Your task to perform on an android device: install app "WhatsApp Messenger" Image 0: 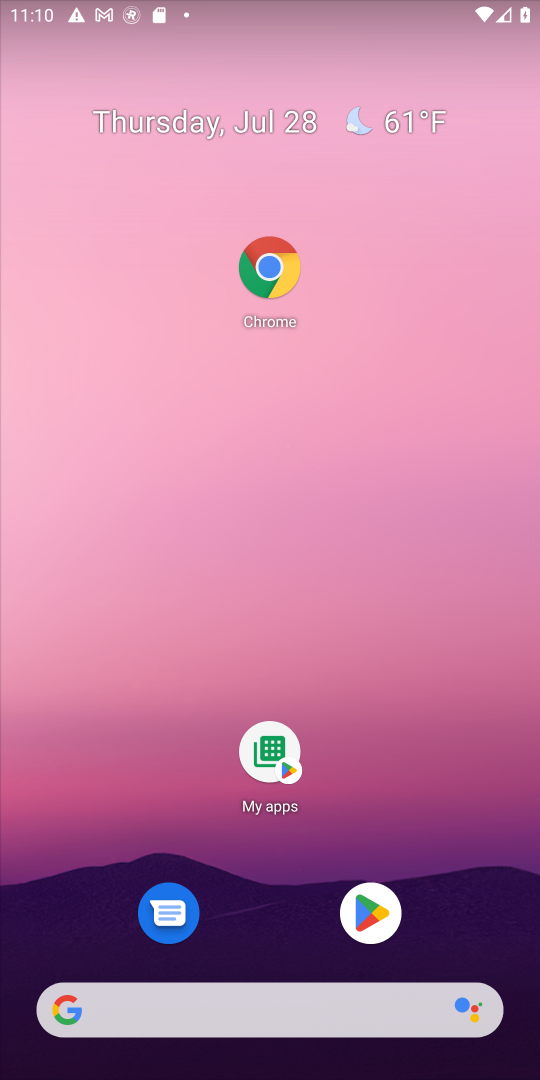
Step 0: press home button
Your task to perform on an android device: install app "WhatsApp Messenger" Image 1: 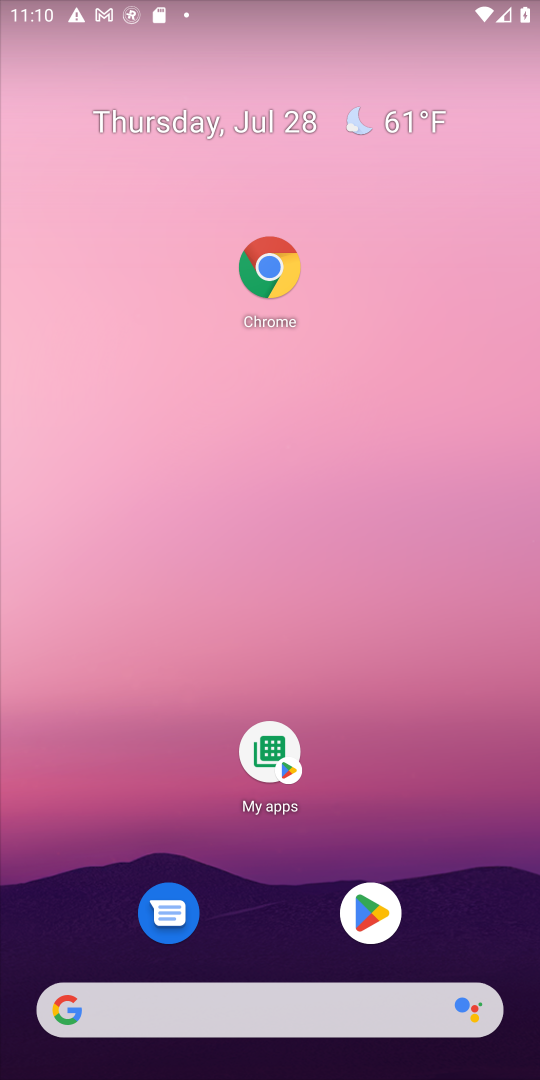
Step 1: click (369, 923)
Your task to perform on an android device: install app "WhatsApp Messenger" Image 2: 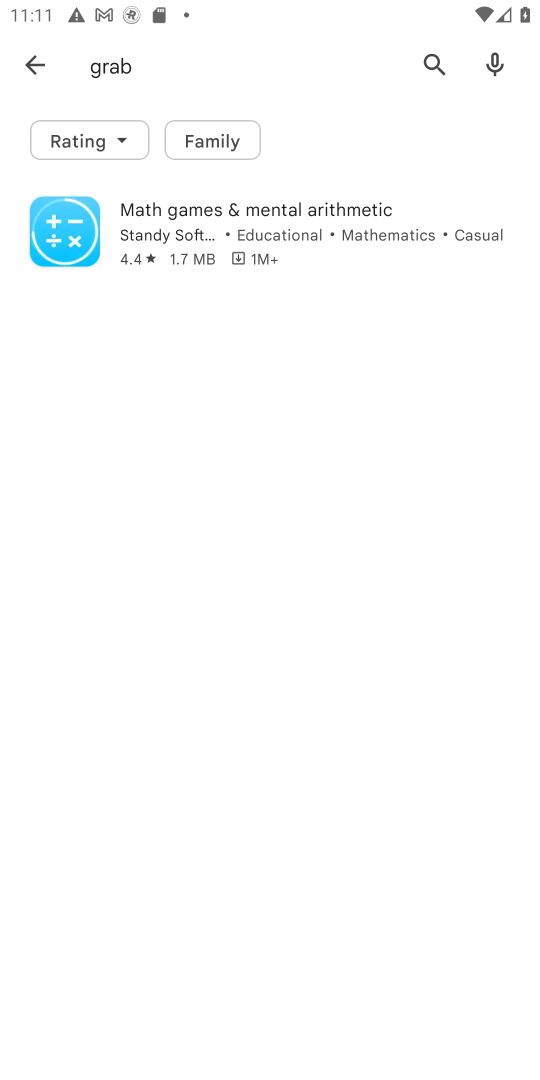
Step 2: click (424, 66)
Your task to perform on an android device: install app "WhatsApp Messenger" Image 3: 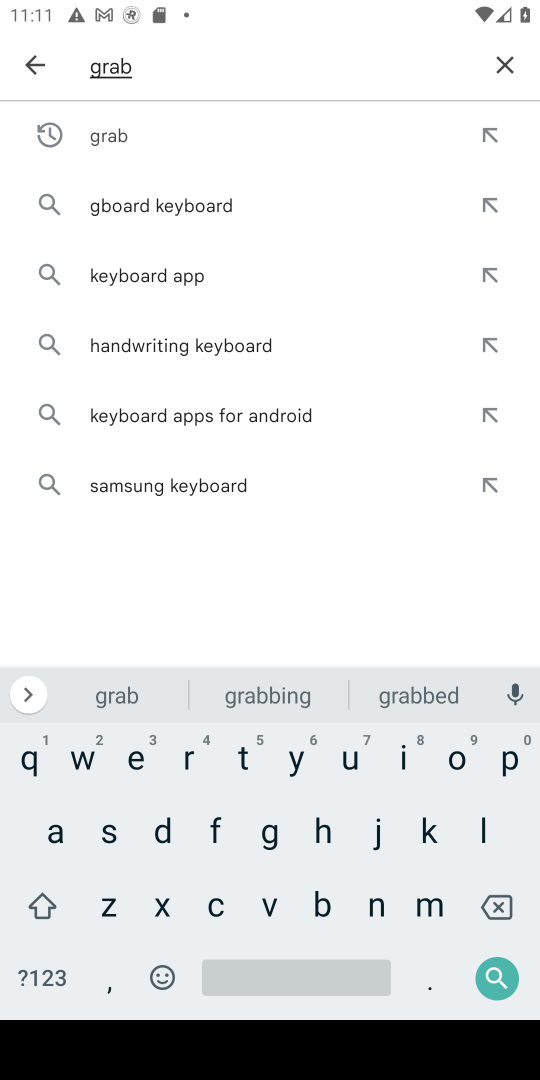
Step 3: click (500, 60)
Your task to perform on an android device: install app "WhatsApp Messenger" Image 4: 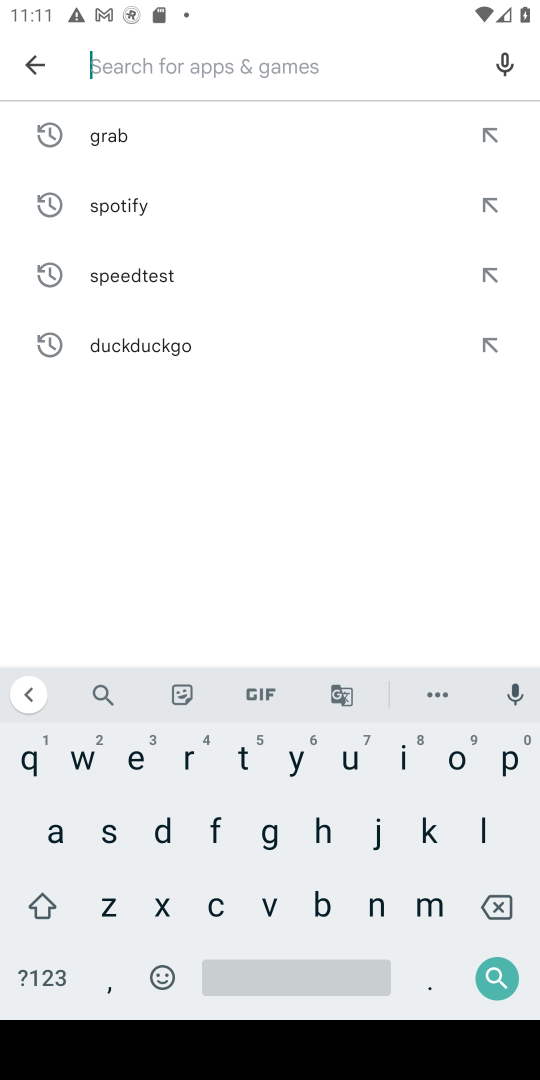
Step 4: click (80, 757)
Your task to perform on an android device: install app "WhatsApp Messenger" Image 5: 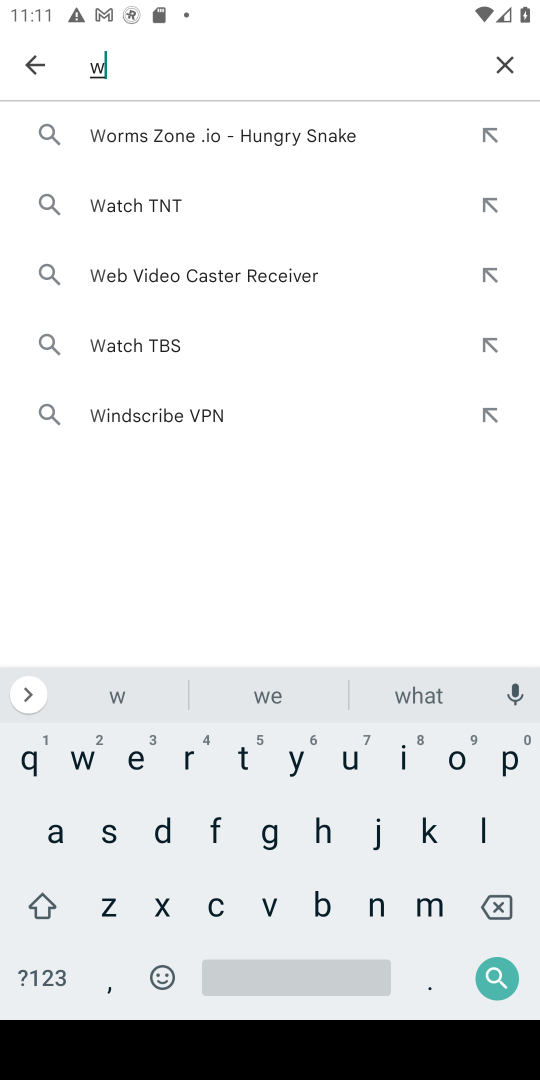
Step 5: click (324, 837)
Your task to perform on an android device: install app "WhatsApp Messenger" Image 6: 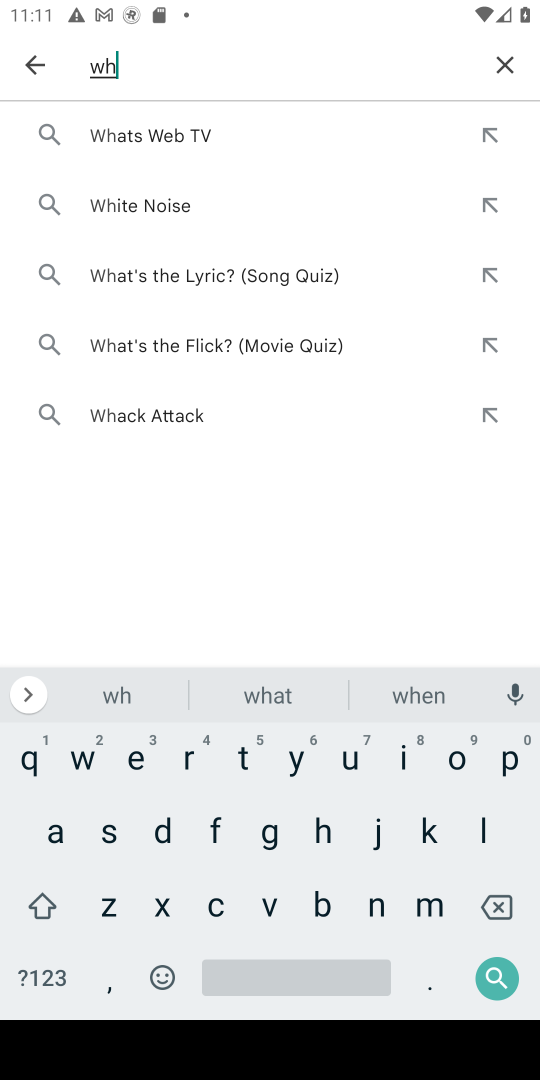
Step 6: click (50, 825)
Your task to perform on an android device: install app "WhatsApp Messenger" Image 7: 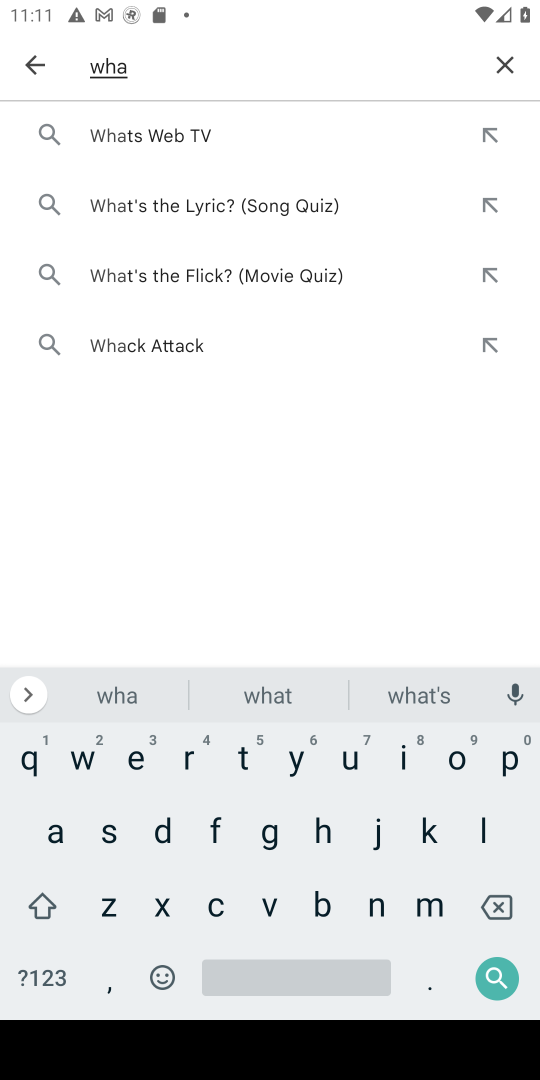
Step 7: click (244, 754)
Your task to perform on an android device: install app "WhatsApp Messenger" Image 8: 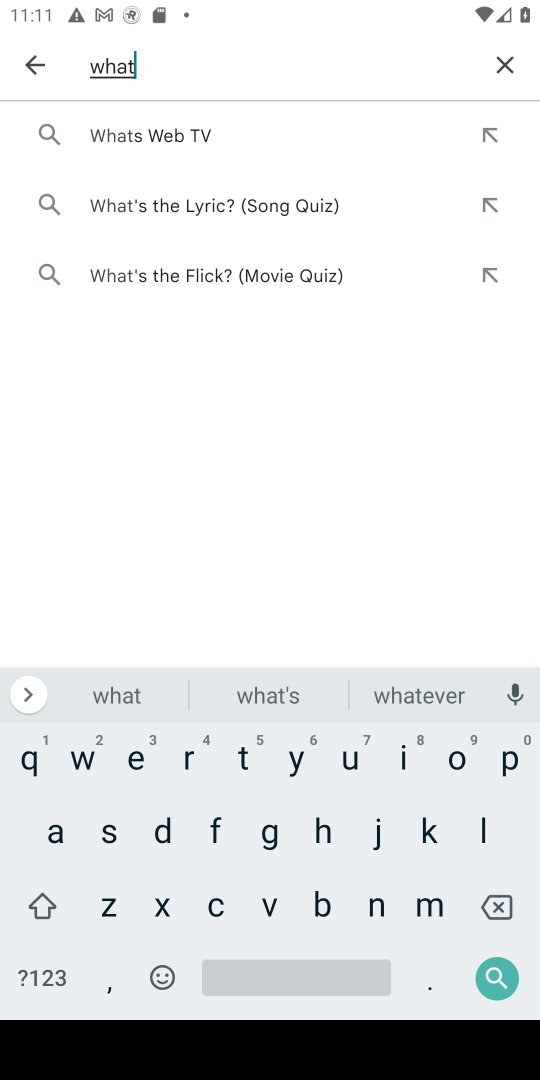
Step 8: click (101, 837)
Your task to perform on an android device: install app "WhatsApp Messenger" Image 9: 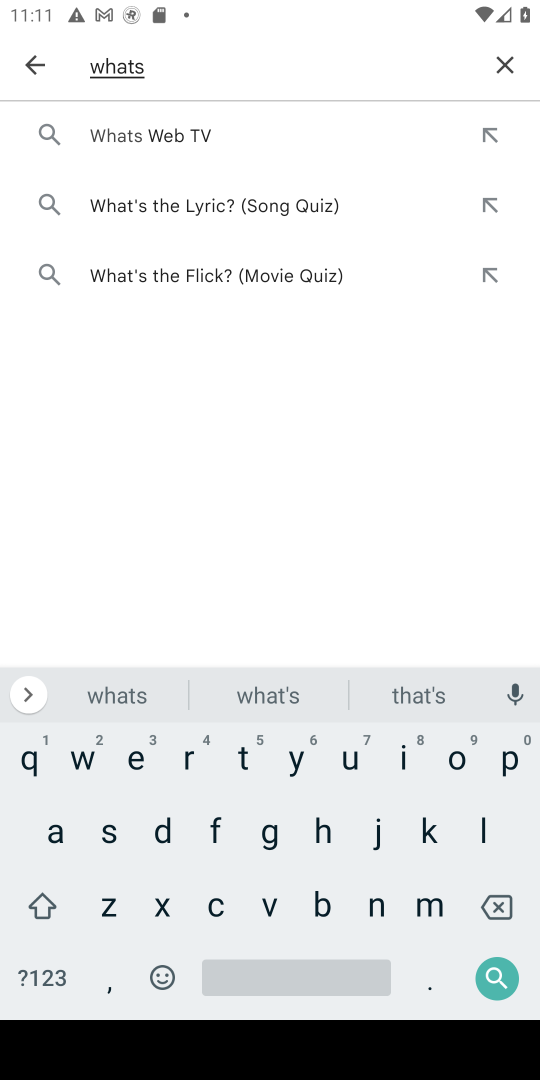
Step 9: click (51, 829)
Your task to perform on an android device: install app "WhatsApp Messenger" Image 10: 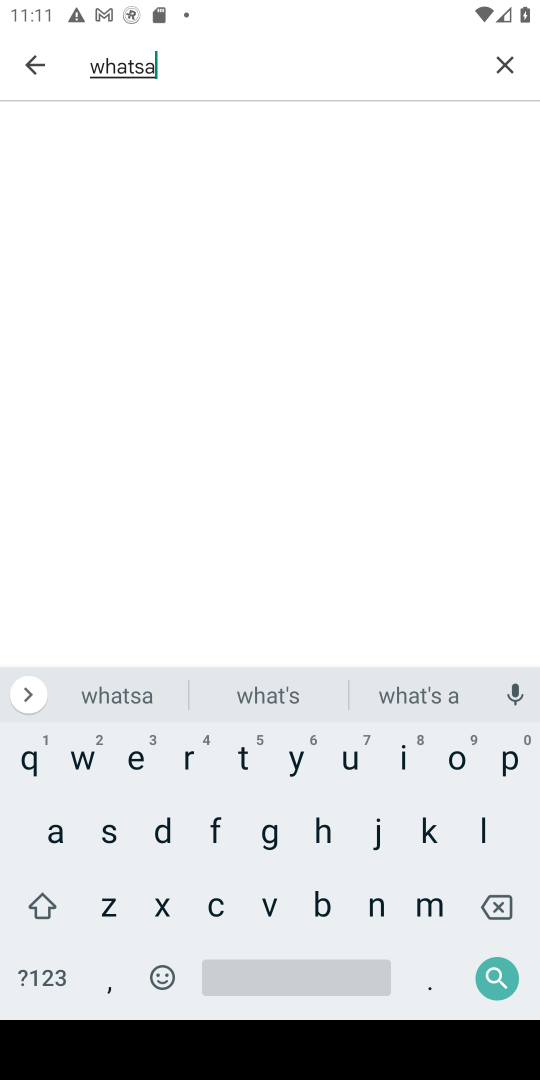
Step 10: click (501, 760)
Your task to perform on an android device: install app "WhatsApp Messenger" Image 11: 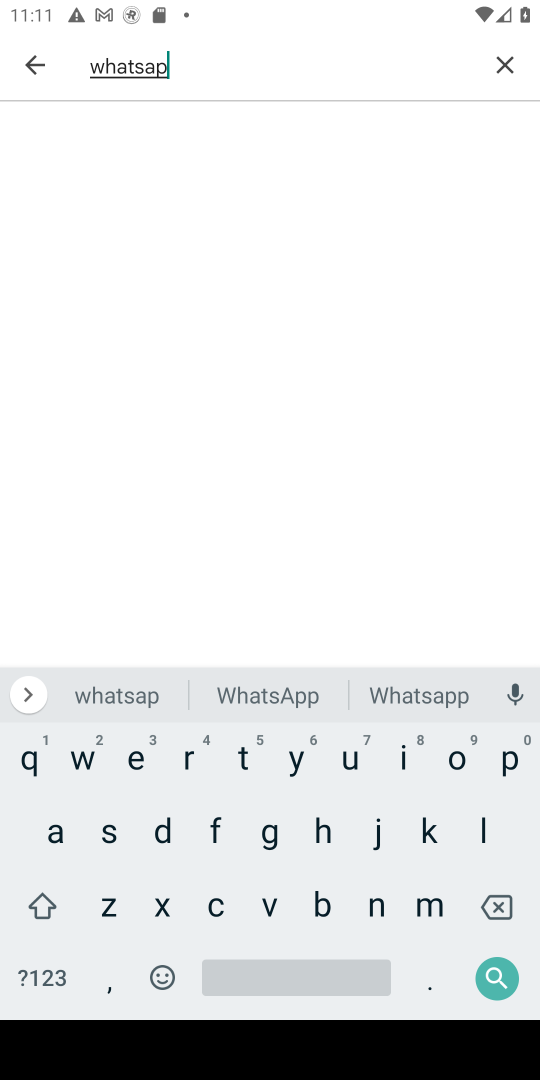
Step 11: click (501, 760)
Your task to perform on an android device: install app "WhatsApp Messenger" Image 12: 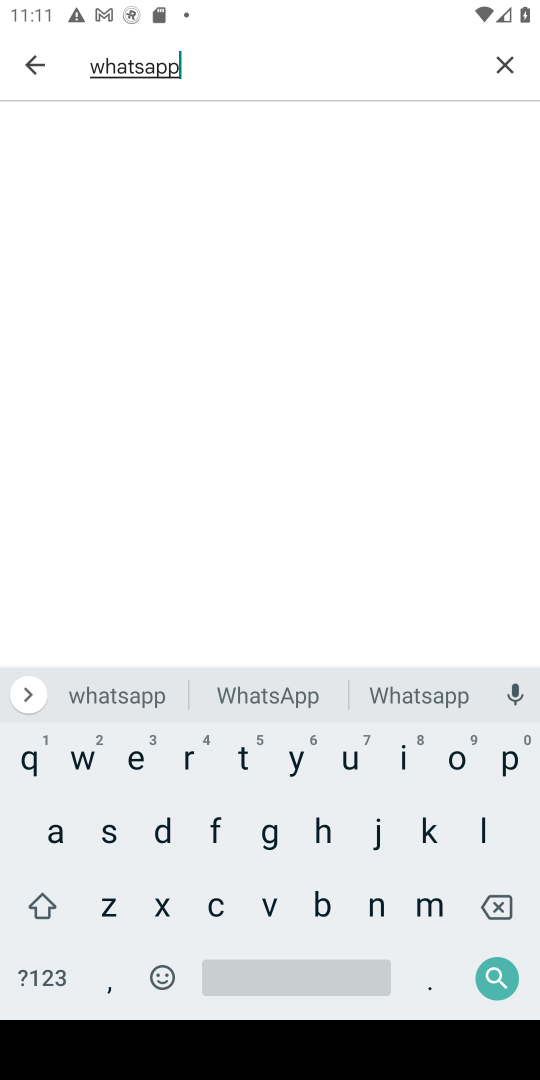
Step 12: click (305, 689)
Your task to perform on an android device: install app "WhatsApp Messenger" Image 13: 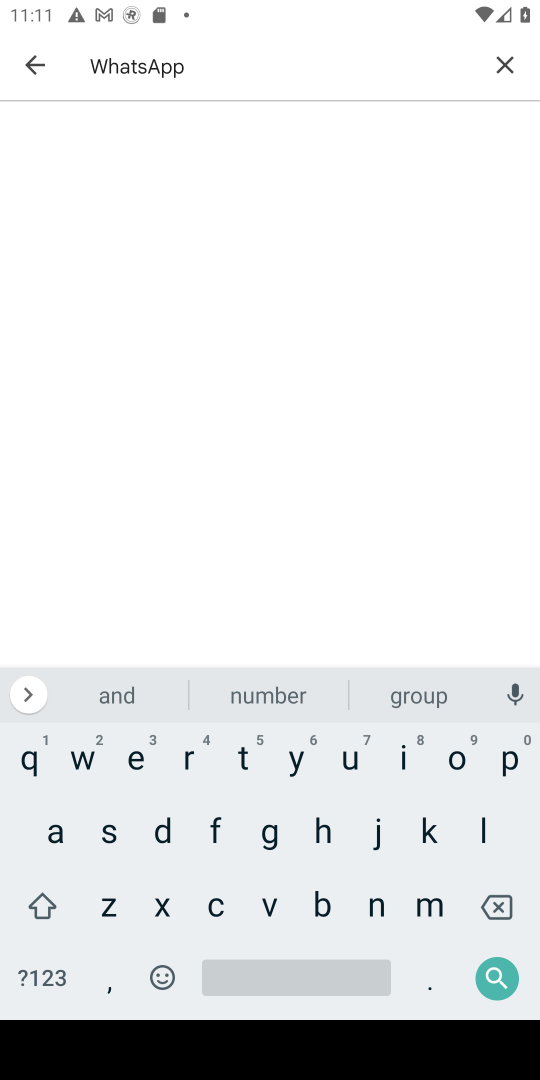
Step 13: click (492, 976)
Your task to perform on an android device: install app "WhatsApp Messenger" Image 14: 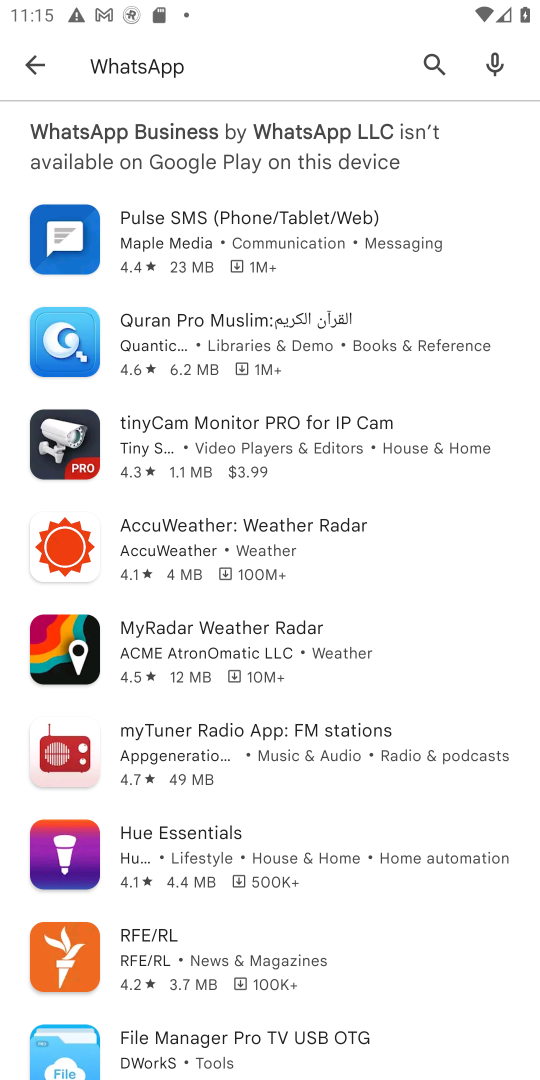
Step 14: task complete